Your task to perform on an android device: refresh tabs in the chrome app Image 0: 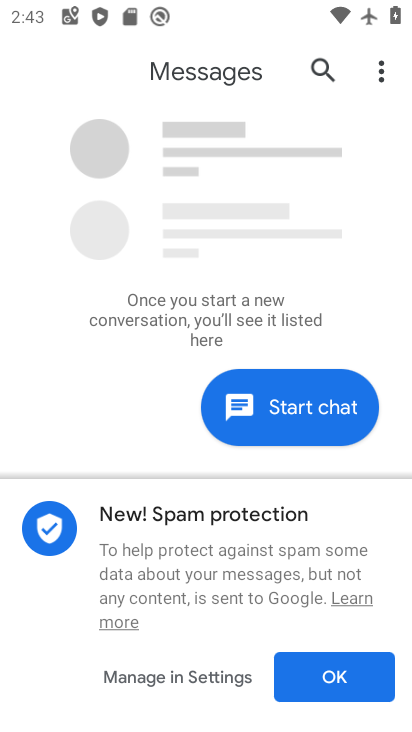
Step 0: press home button
Your task to perform on an android device: refresh tabs in the chrome app Image 1: 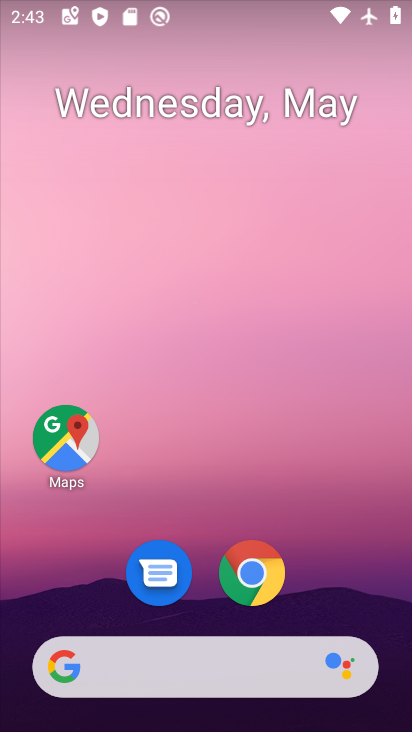
Step 1: click (256, 576)
Your task to perform on an android device: refresh tabs in the chrome app Image 2: 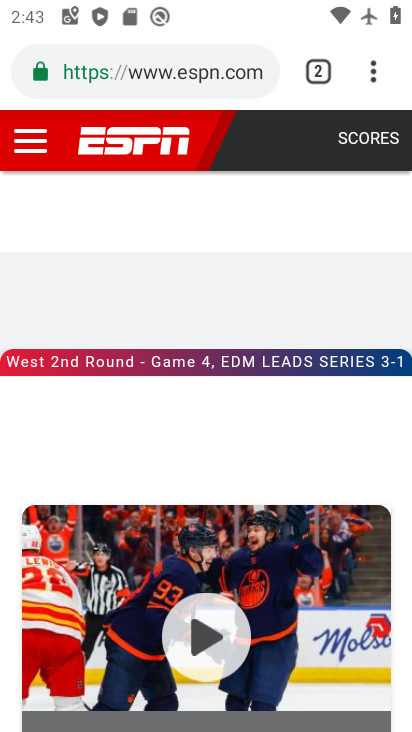
Step 2: click (360, 72)
Your task to perform on an android device: refresh tabs in the chrome app Image 3: 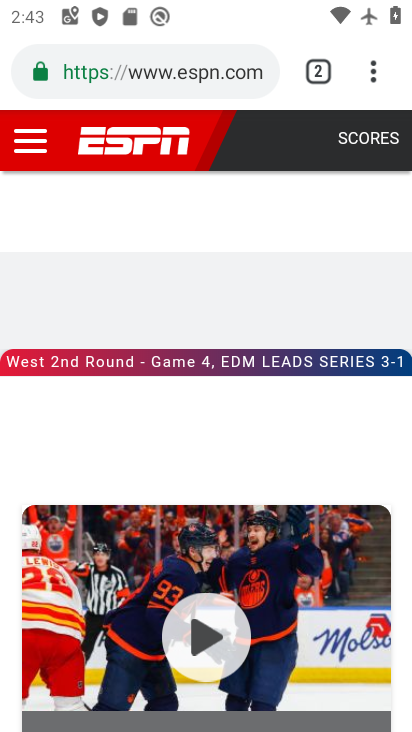
Step 3: click (395, 75)
Your task to perform on an android device: refresh tabs in the chrome app Image 4: 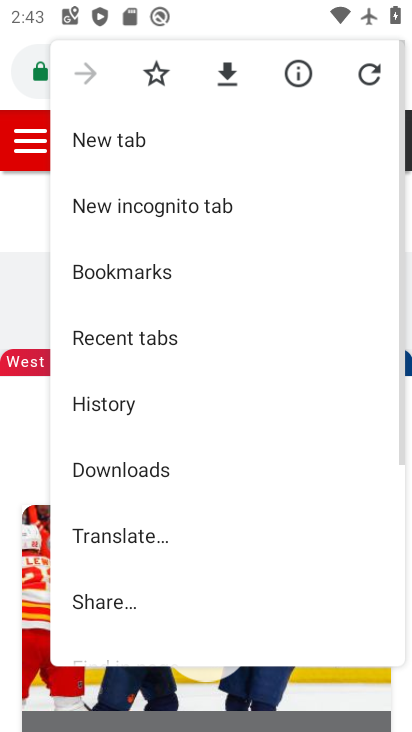
Step 4: click (376, 71)
Your task to perform on an android device: refresh tabs in the chrome app Image 5: 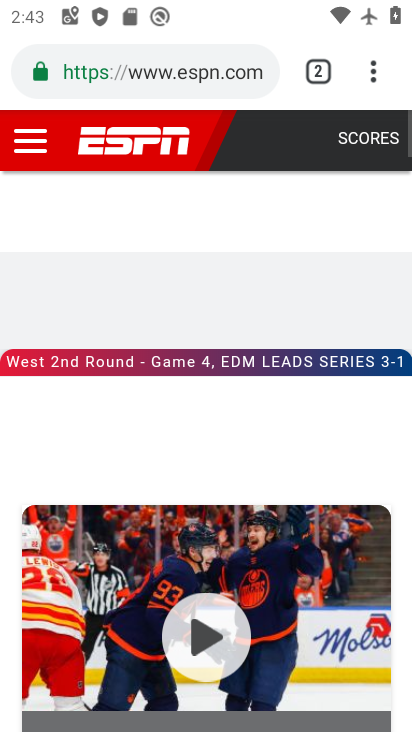
Step 5: click (331, 70)
Your task to perform on an android device: refresh tabs in the chrome app Image 6: 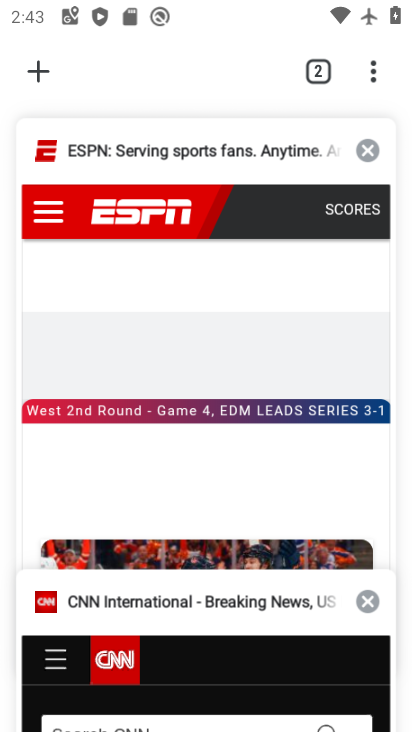
Step 6: click (218, 600)
Your task to perform on an android device: refresh tabs in the chrome app Image 7: 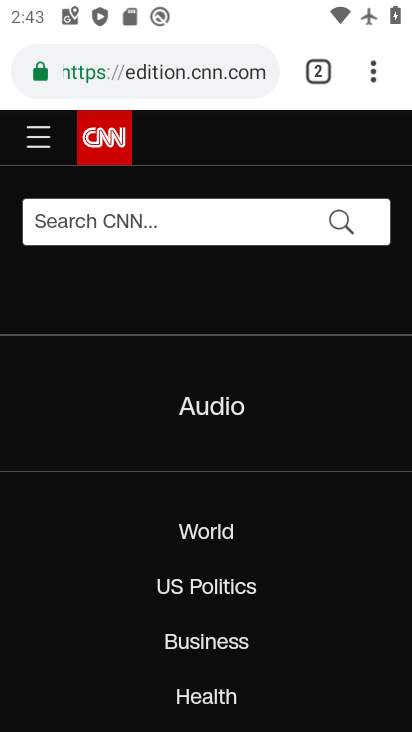
Step 7: click (395, 68)
Your task to perform on an android device: refresh tabs in the chrome app Image 8: 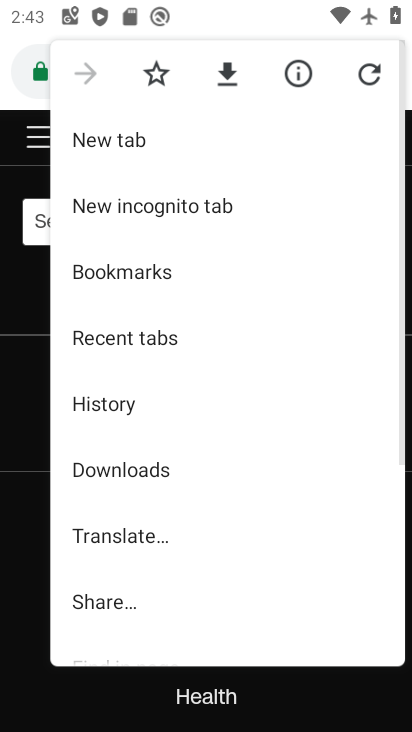
Step 8: click (381, 72)
Your task to perform on an android device: refresh tabs in the chrome app Image 9: 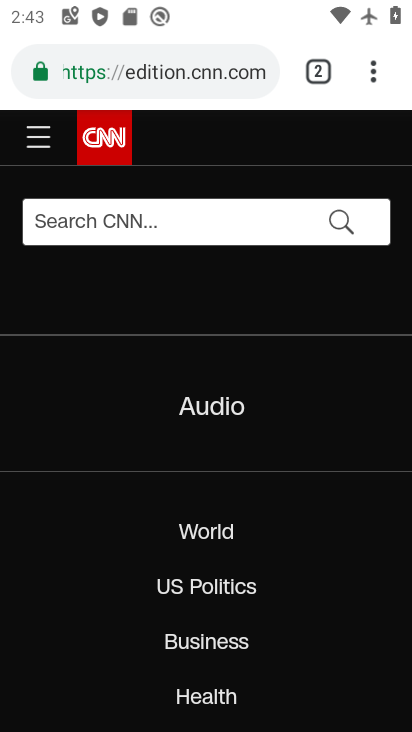
Step 9: task complete